Your task to perform on an android device: Turn off notifications for the Google Maps app Image 0: 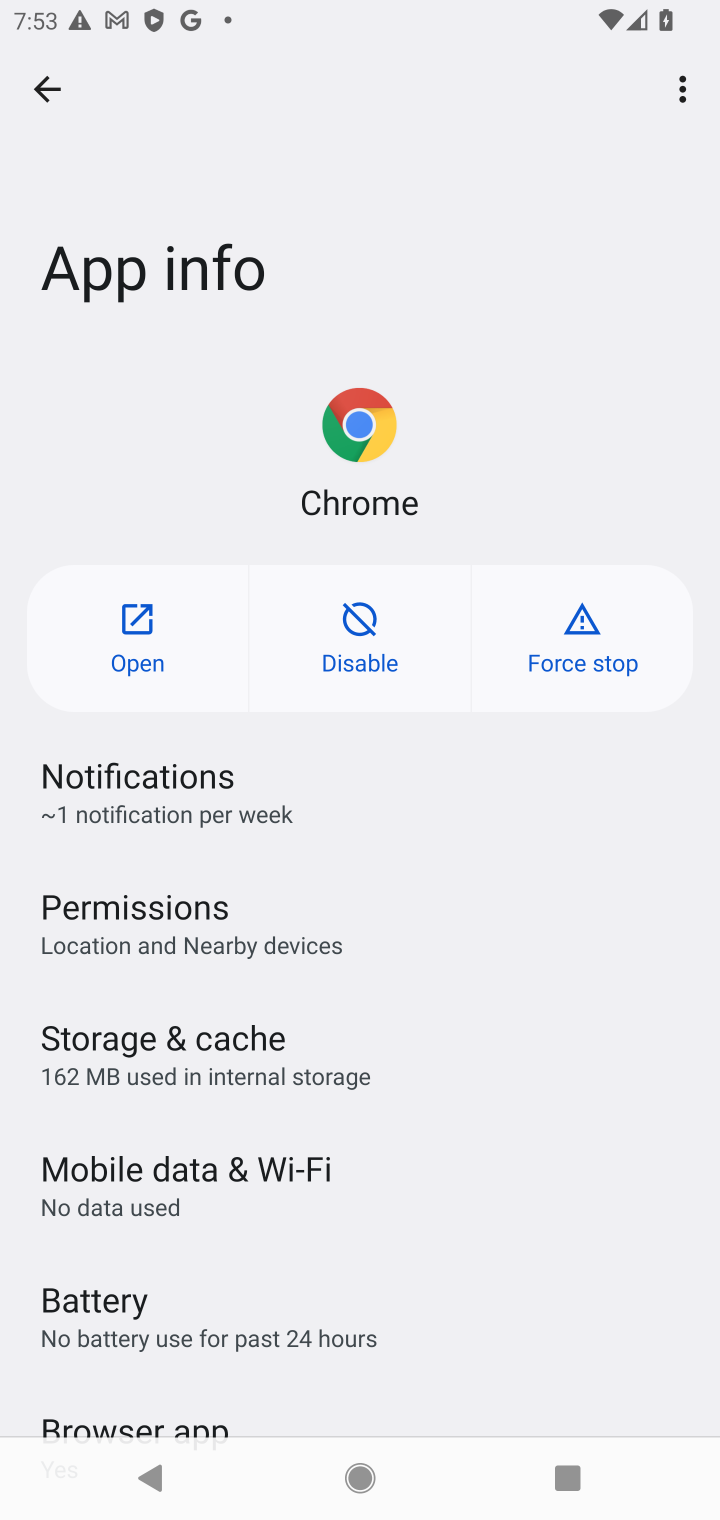
Step 0: press home button
Your task to perform on an android device: Turn off notifications for the Google Maps app Image 1: 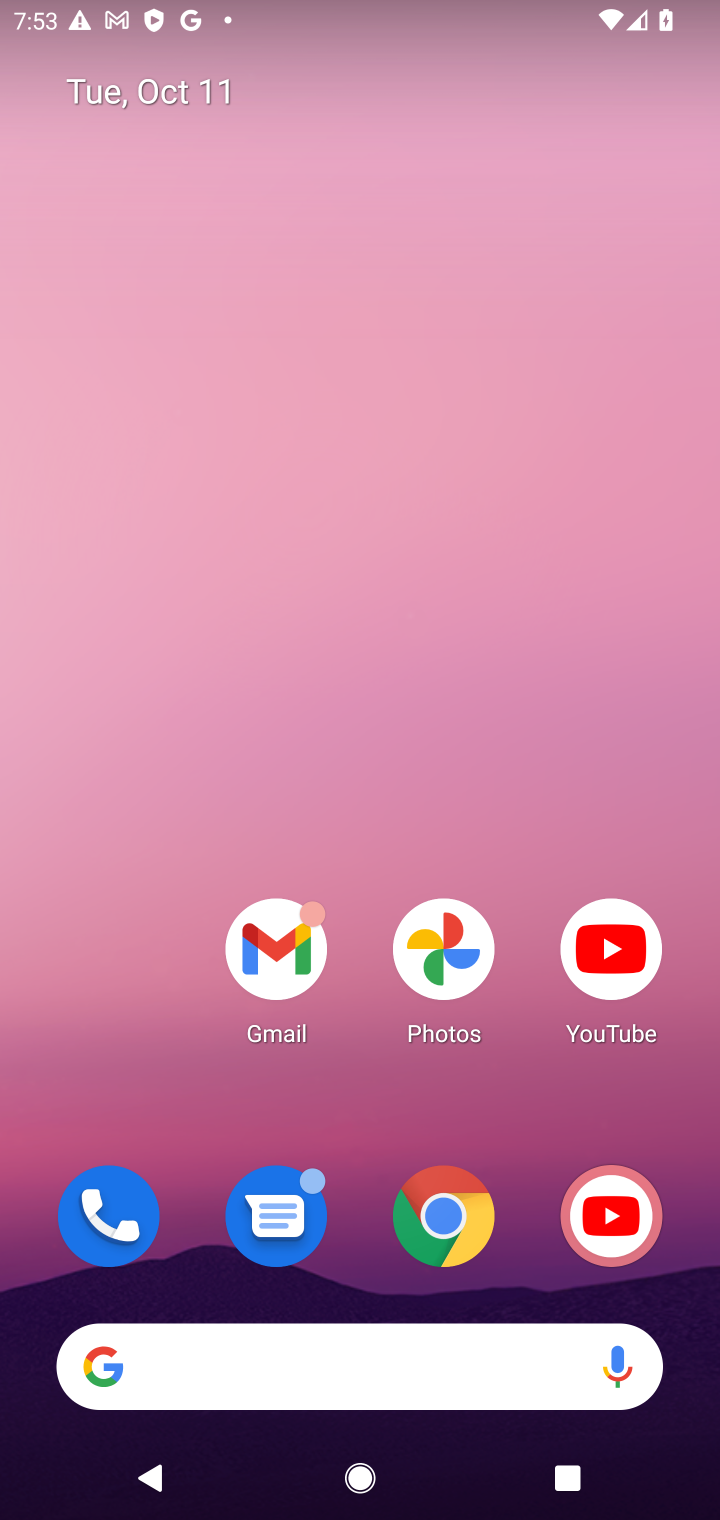
Step 1: drag from (377, 1166) to (381, 359)
Your task to perform on an android device: Turn off notifications for the Google Maps app Image 2: 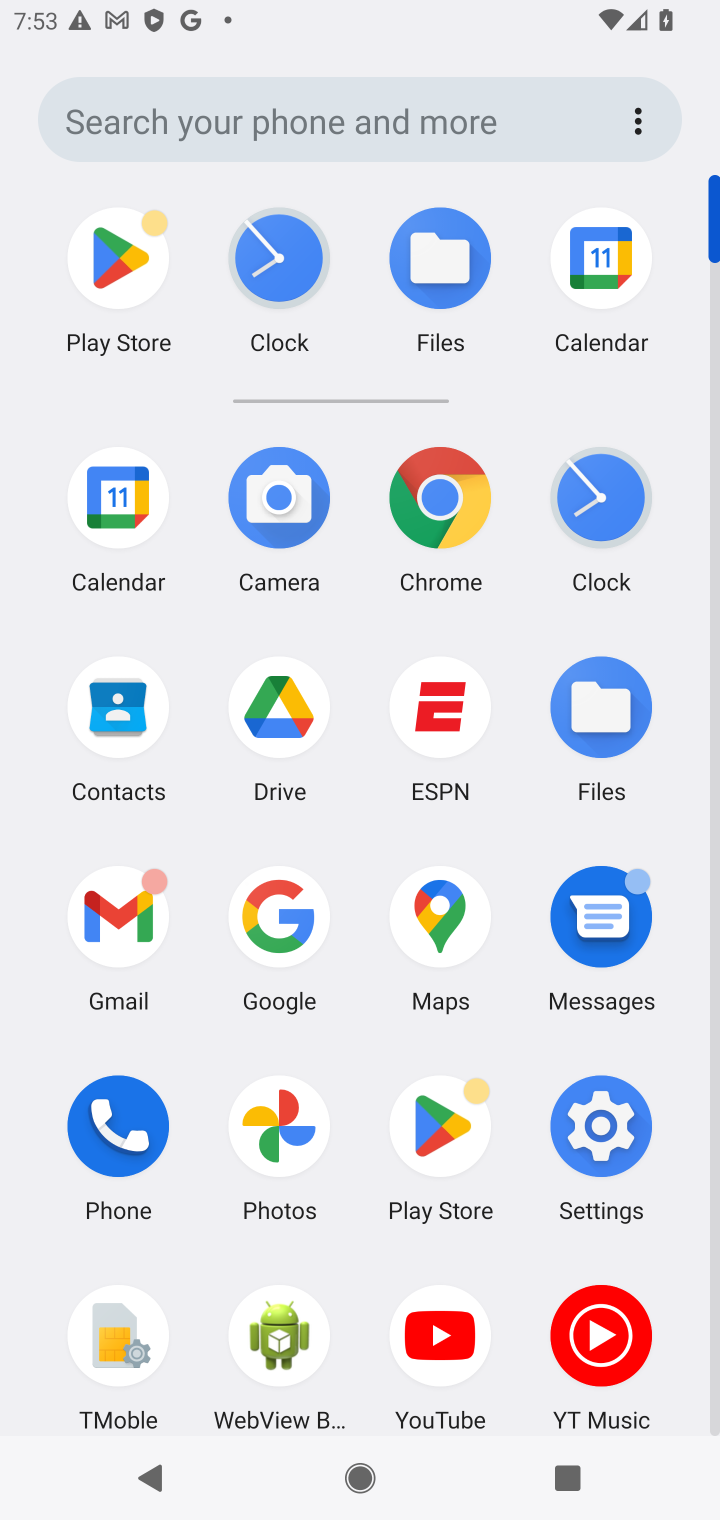
Step 2: click (428, 922)
Your task to perform on an android device: Turn off notifications for the Google Maps app Image 3: 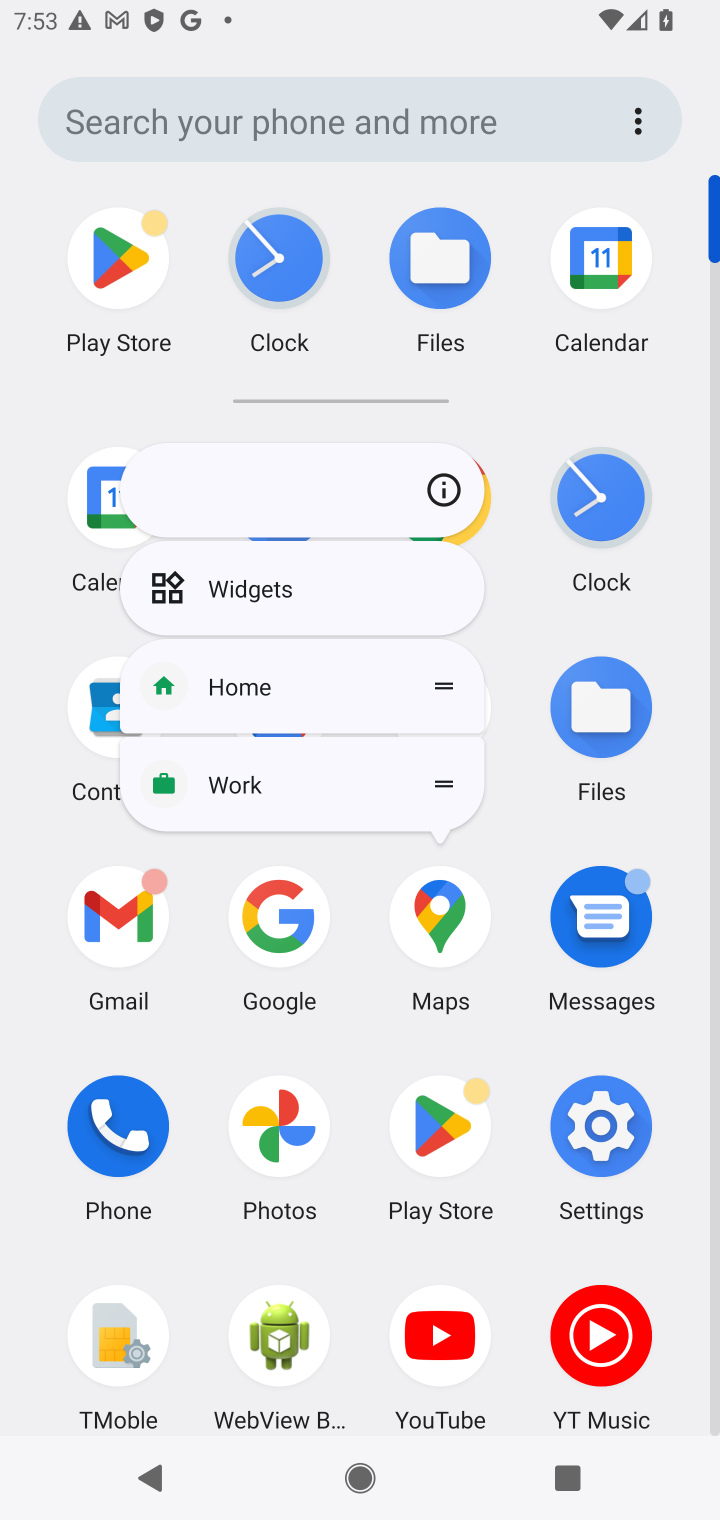
Step 3: click (439, 482)
Your task to perform on an android device: Turn off notifications for the Google Maps app Image 4: 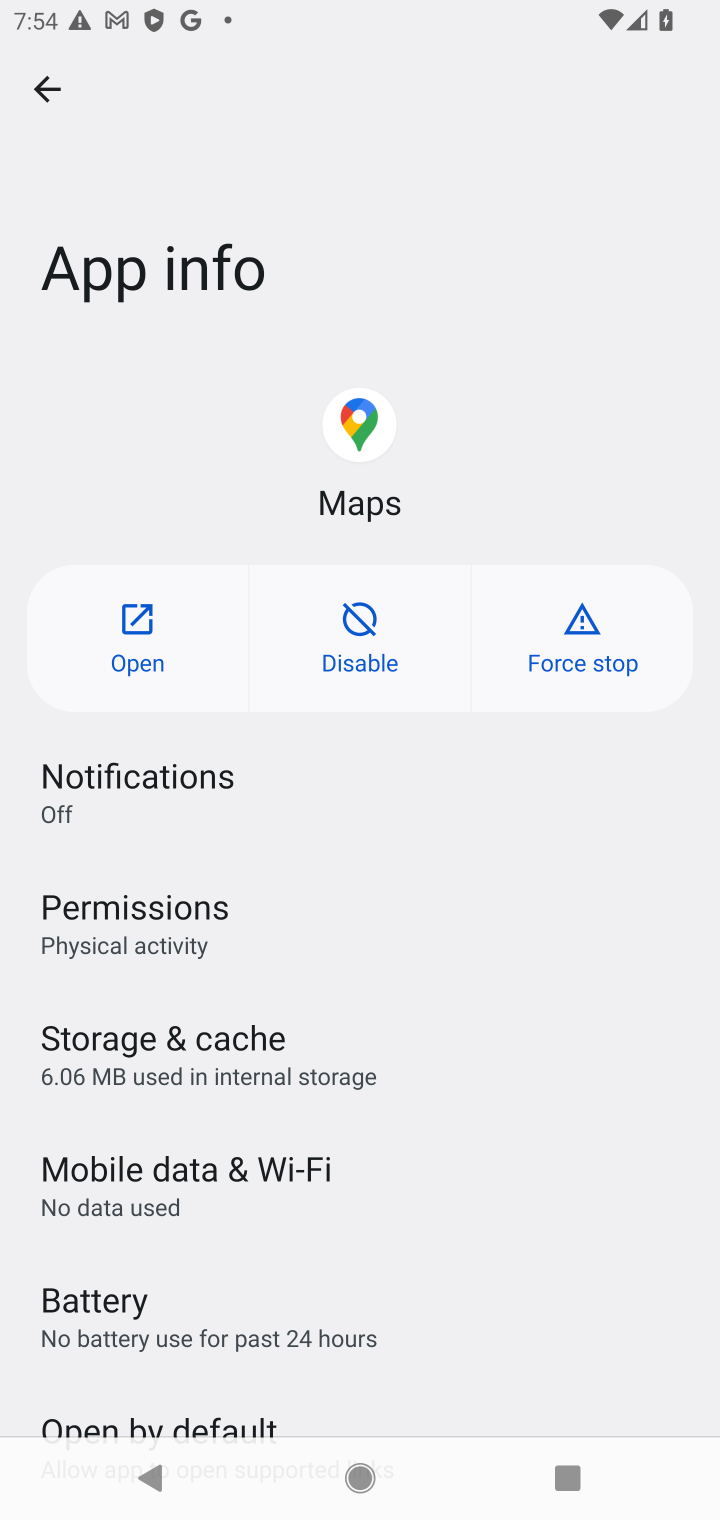
Step 4: click (271, 767)
Your task to perform on an android device: Turn off notifications for the Google Maps app Image 5: 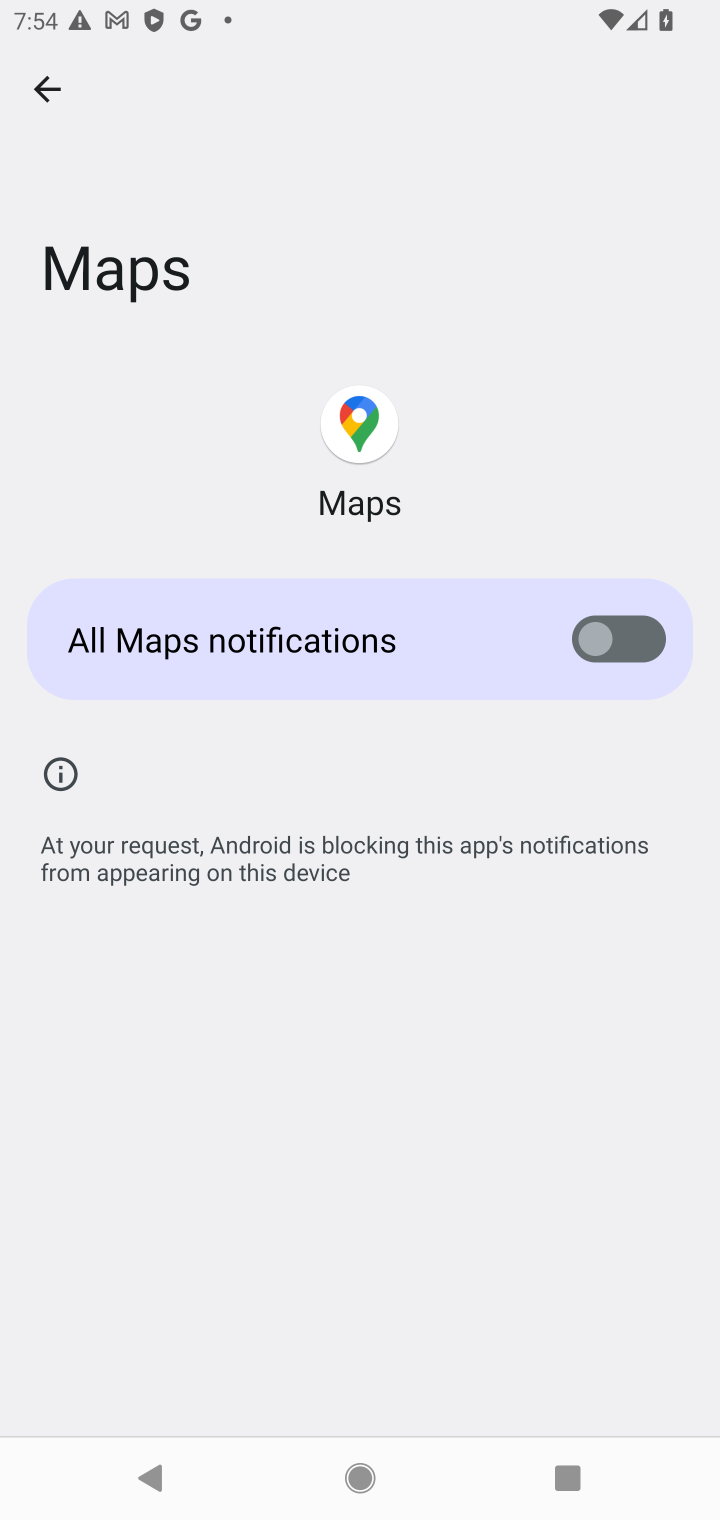
Step 5: task complete